Your task to perform on an android device: move a message to another label in the gmail app Image 0: 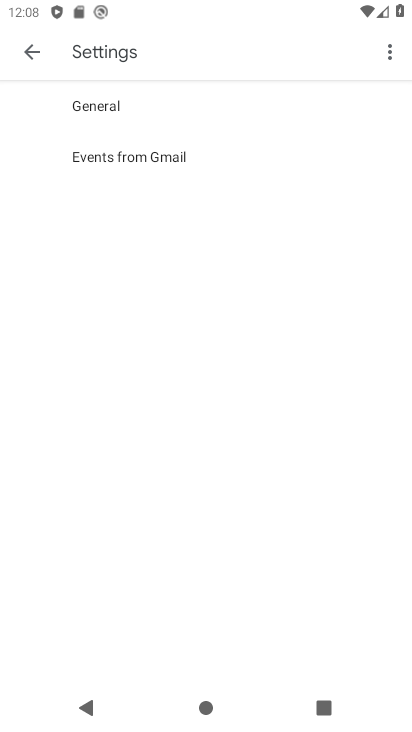
Step 0: press home button
Your task to perform on an android device: move a message to another label in the gmail app Image 1: 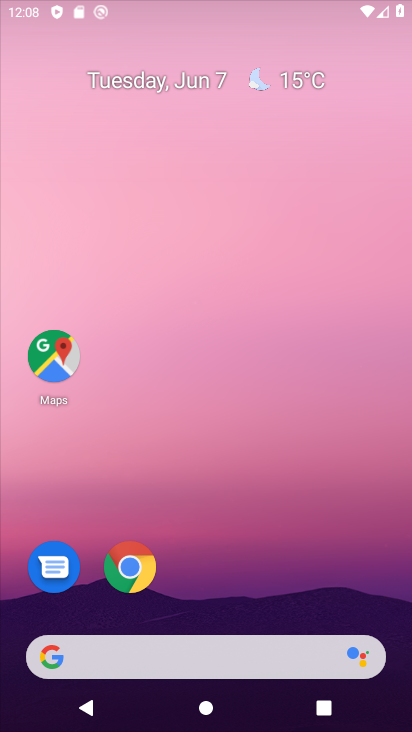
Step 1: drag from (323, 679) to (322, 20)
Your task to perform on an android device: move a message to another label in the gmail app Image 2: 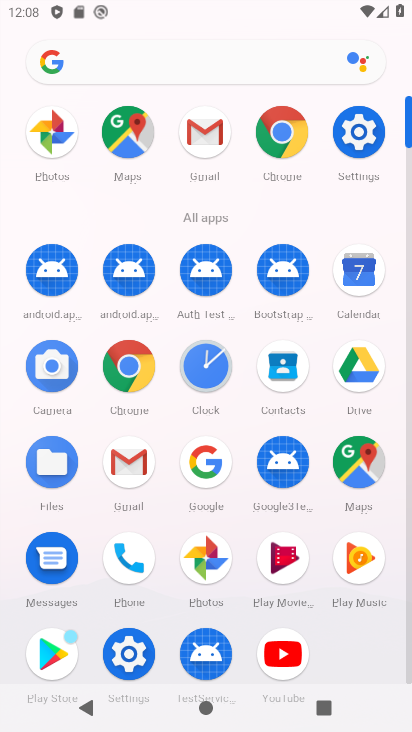
Step 2: click (113, 470)
Your task to perform on an android device: move a message to another label in the gmail app Image 3: 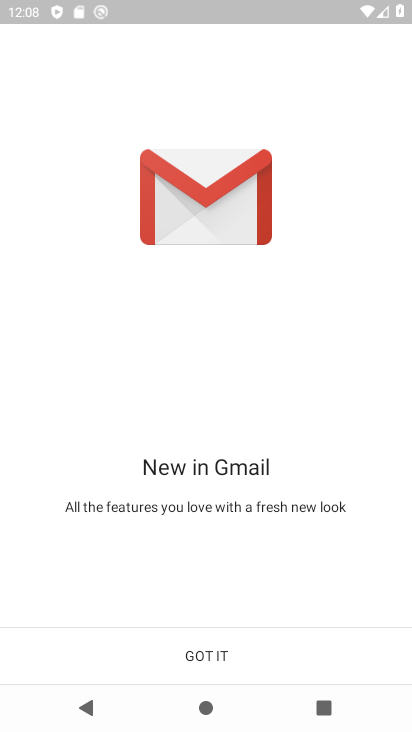
Step 3: click (227, 656)
Your task to perform on an android device: move a message to another label in the gmail app Image 4: 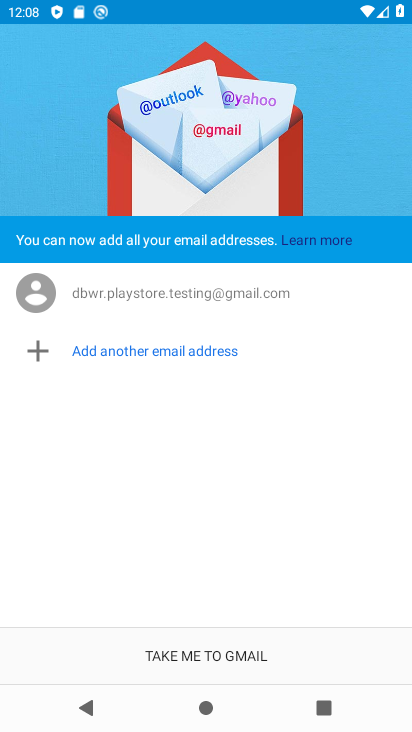
Step 4: click (188, 647)
Your task to perform on an android device: move a message to another label in the gmail app Image 5: 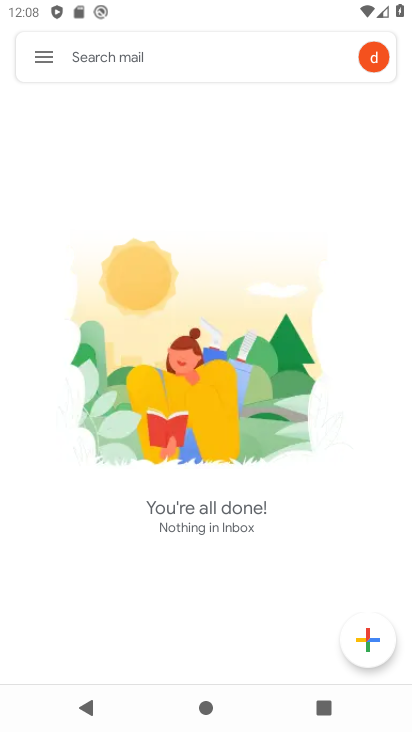
Step 5: task complete